Your task to perform on an android device: open chrome and create a bookmark for the current page Image 0: 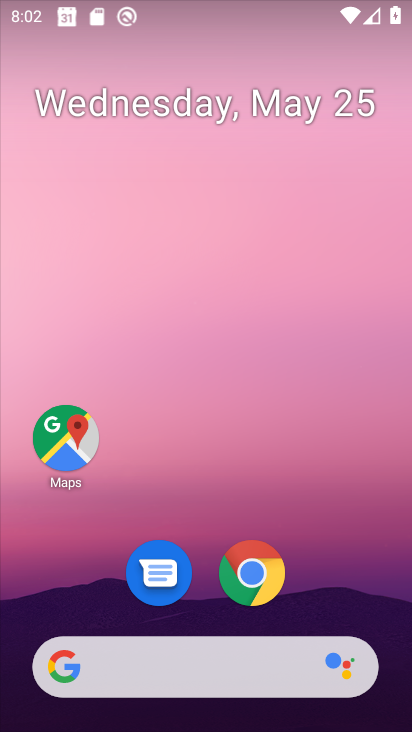
Step 0: click (246, 567)
Your task to perform on an android device: open chrome and create a bookmark for the current page Image 1: 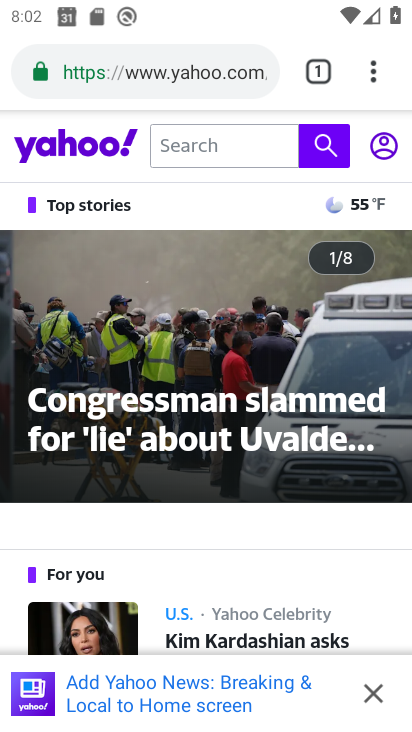
Step 1: click (373, 66)
Your task to perform on an android device: open chrome and create a bookmark for the current page Image 2: 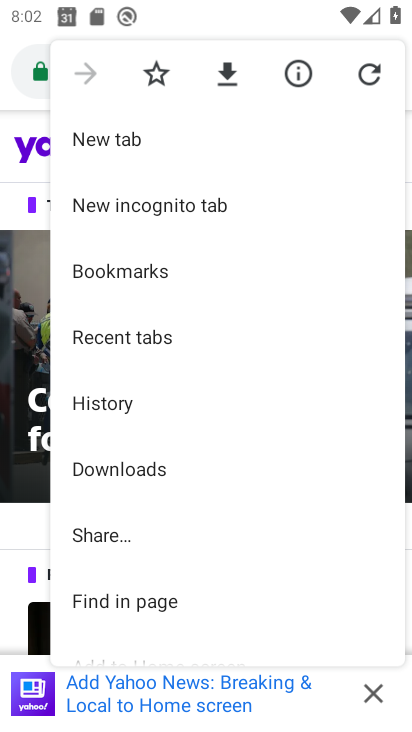
Step 2: click (152, 69)
Your task to perform on an android device: open chrome and create a bookmark for the current page Image 3: 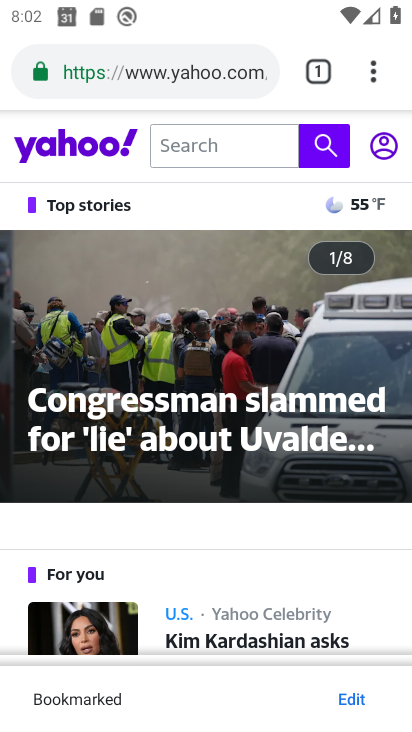
Step 3: task complete